Your task to perform on an android device: Search for lg ultragear on amazon, select the first entry, add it to the cart, then select checkout. Image 0: 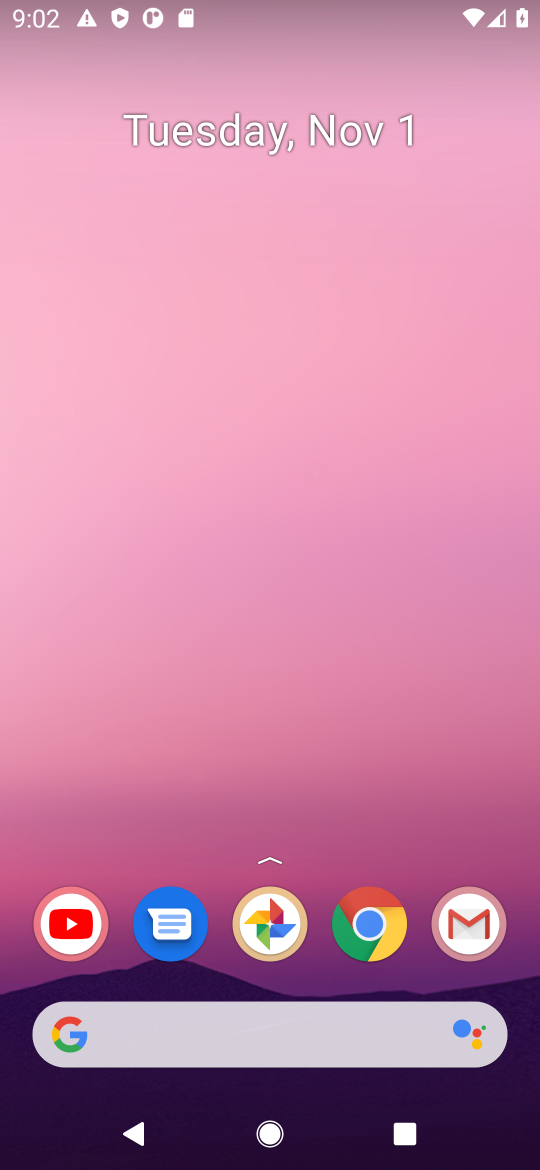
Step 0: click (367, 941)
Your task to perform on an android device: Search for lg ultragear on amazon, select the first entry, add it to the cart, then select checkout. Image 1: 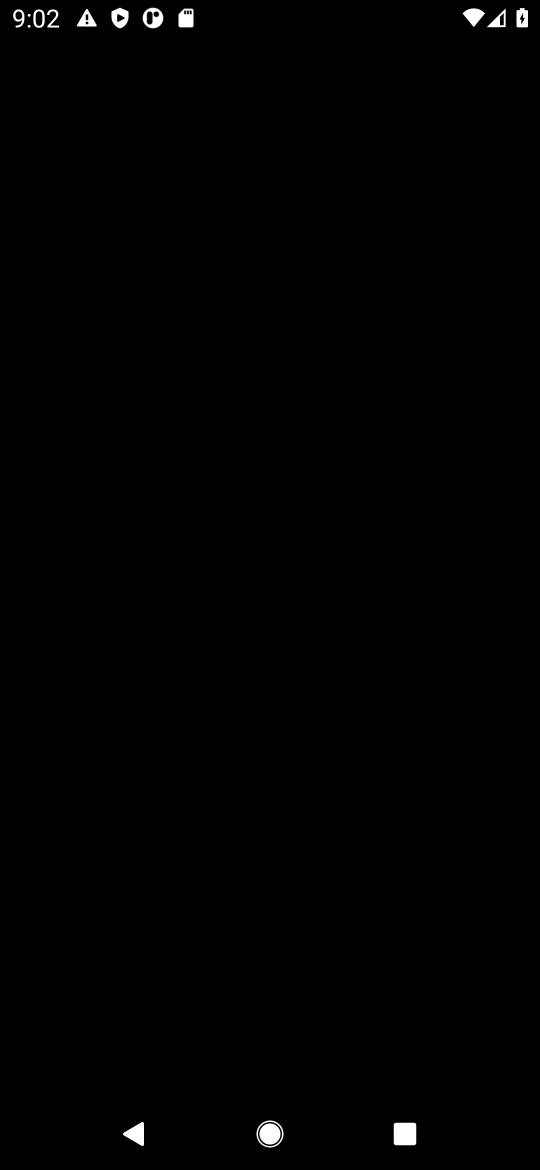
Step 1: press home button
Your task to perform on an android device: Search for lg ultragear on amazon, select the first entry, add it to the cart, then select checkout. Image 2: 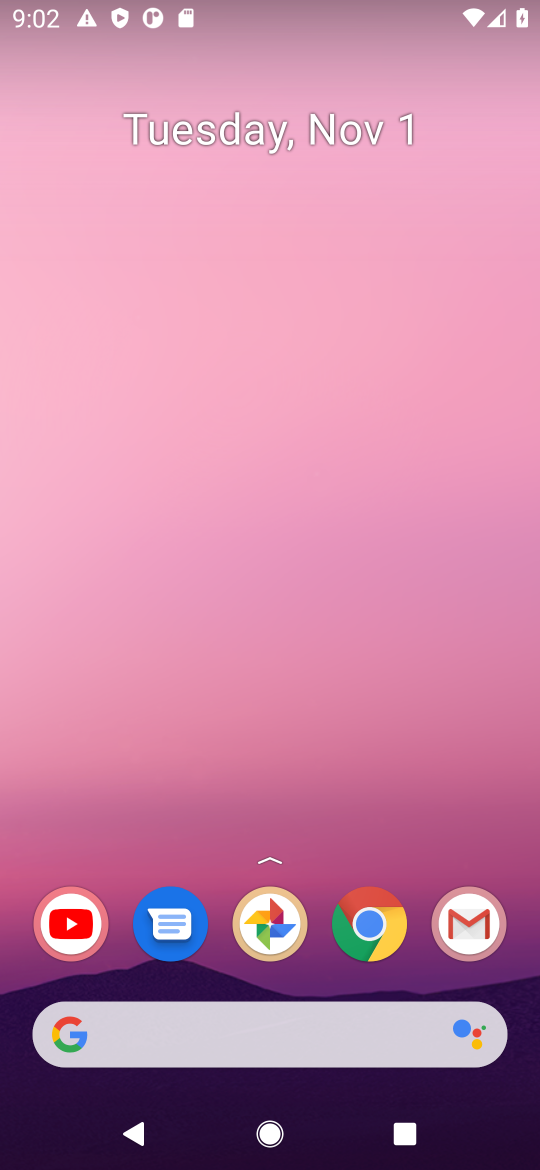
Step 2: click (373, 928)
Your task to perform on an android device: Search for lg ultragear on amazon, select the first entry, add it to the cart, then select checkout. Image 3: 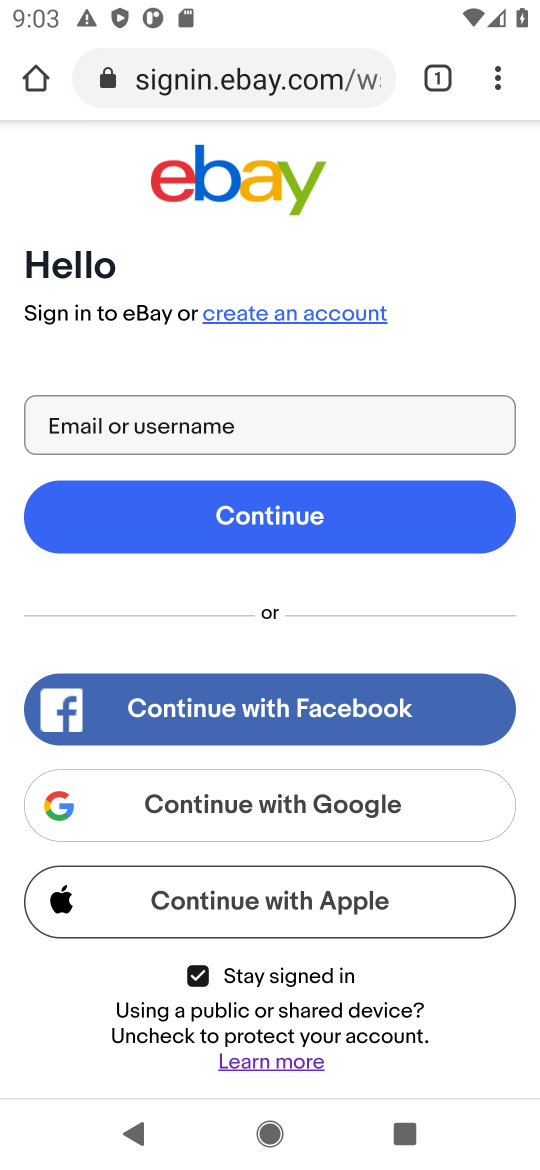
Step 3: click (255, 88)
Your task to perform on an android device: Search for lg ultragear on amazon, select the first entry, add it to the cart, then select checkout. Image 4: 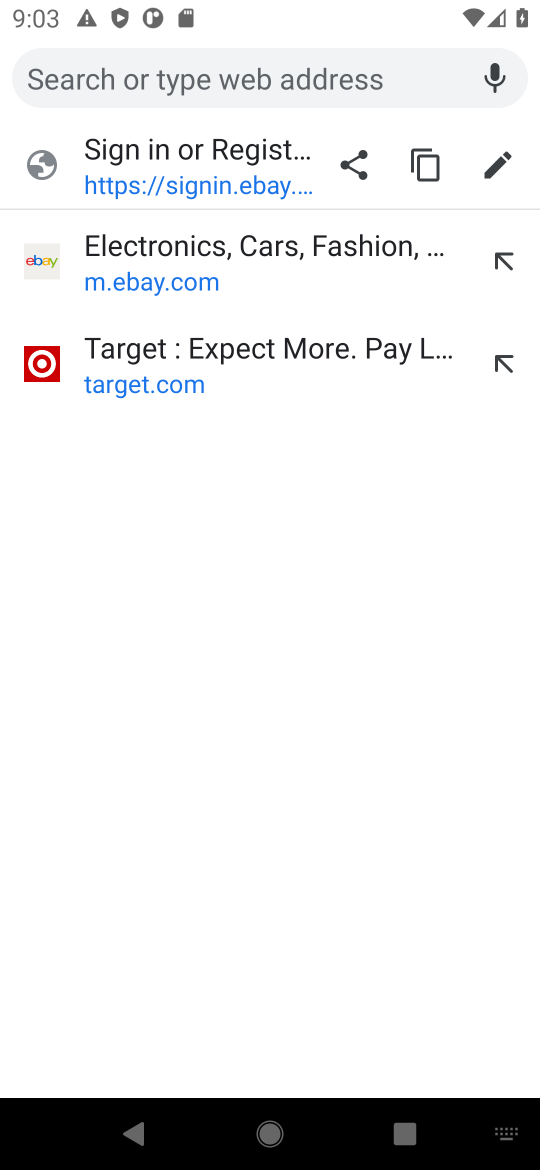
Step 4: type "amazon"
Your task to perform on an android device: Search for lg ultragear on amazon, select the first entry, add it to the cart, then select checkout. Image 5: 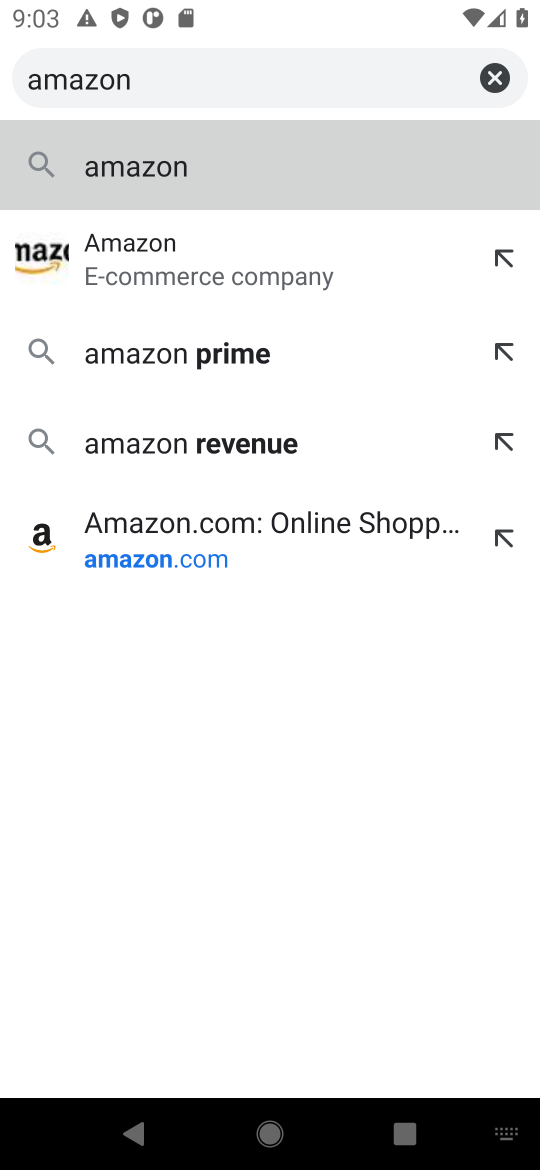
Step 5: click (204, 269)
Your task to perform on an android device: Search for lg ultragear on amazon, select the first entry, add it to the cart, then select checkout. Image 6: 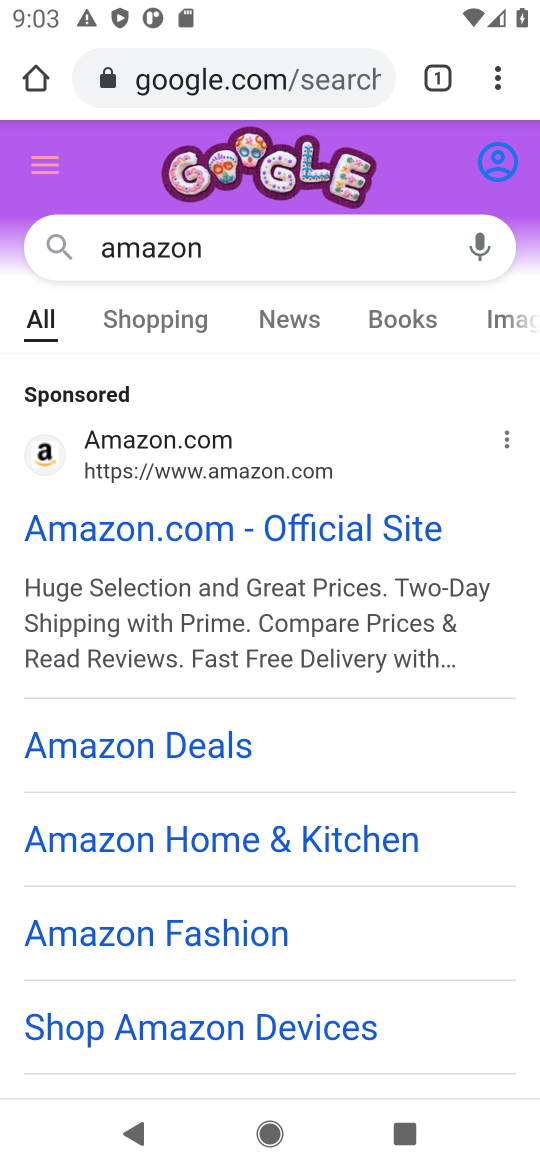
Step 6: click (288, 533)
Your task to perform on an android device: Search for lg ultragear on amazon, select the first entry, add it to the cart, then select checkout. Image 7: 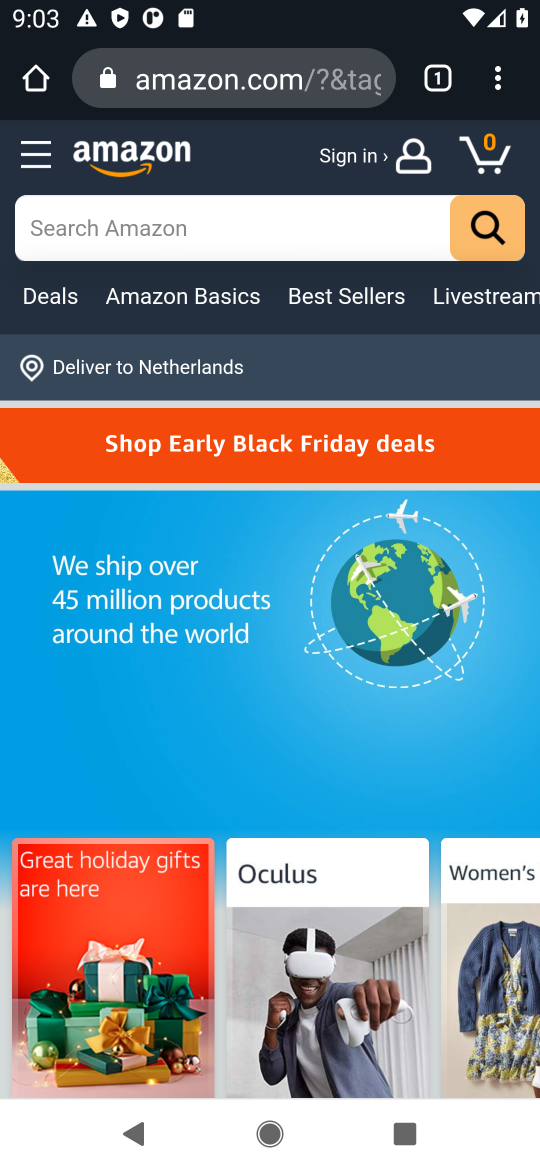
Step 7: click (251, 230)
Your task to perform on an android device: Search for lg ultragear on amazon, select the first entry, add it to the cart, then select checkout. Image 8: 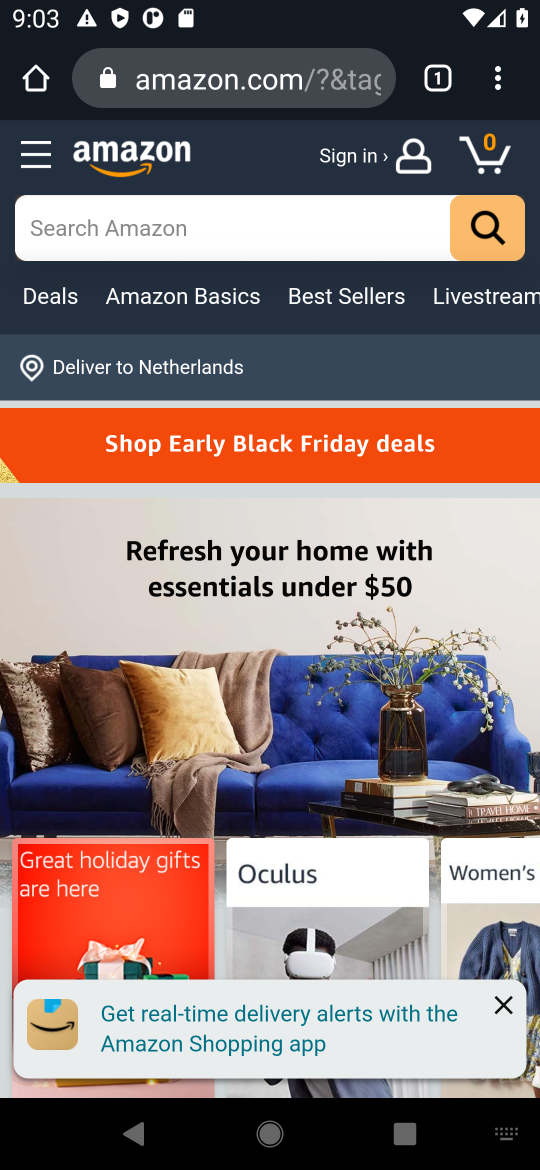
Step 8: type "lg ultragear"
Your task to perform on an android device: Search for lg ultragear on amazon, select the first entry, add it to the cart, then select checkout. Image 9: 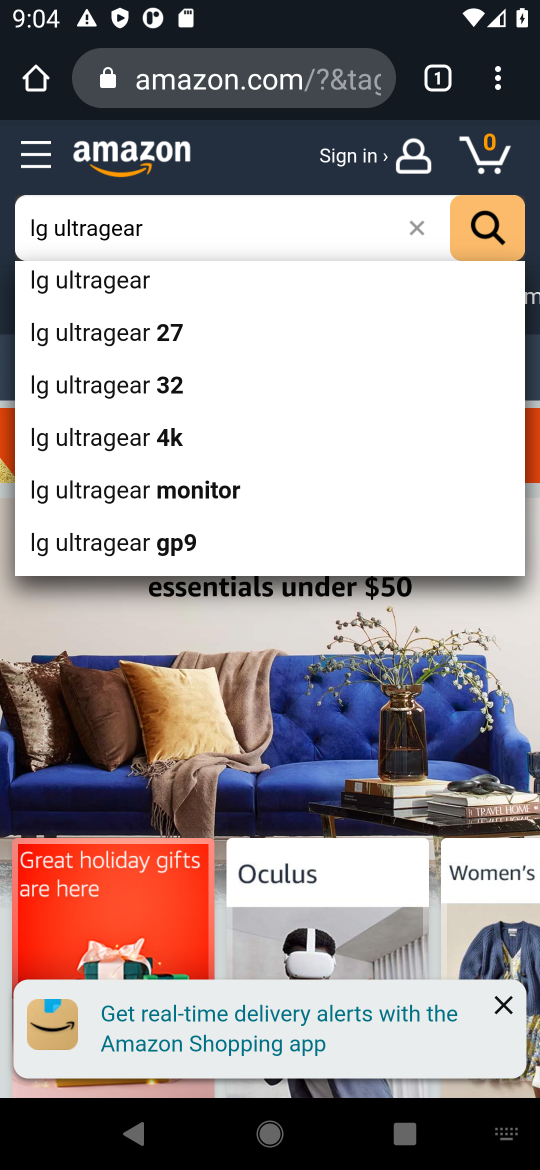
Step 9: click (80, 281)
Your task to perform on an android device: Search for lg ultragear on amazon, select the first entry, add it to the cart, then select checkout. Image 10: 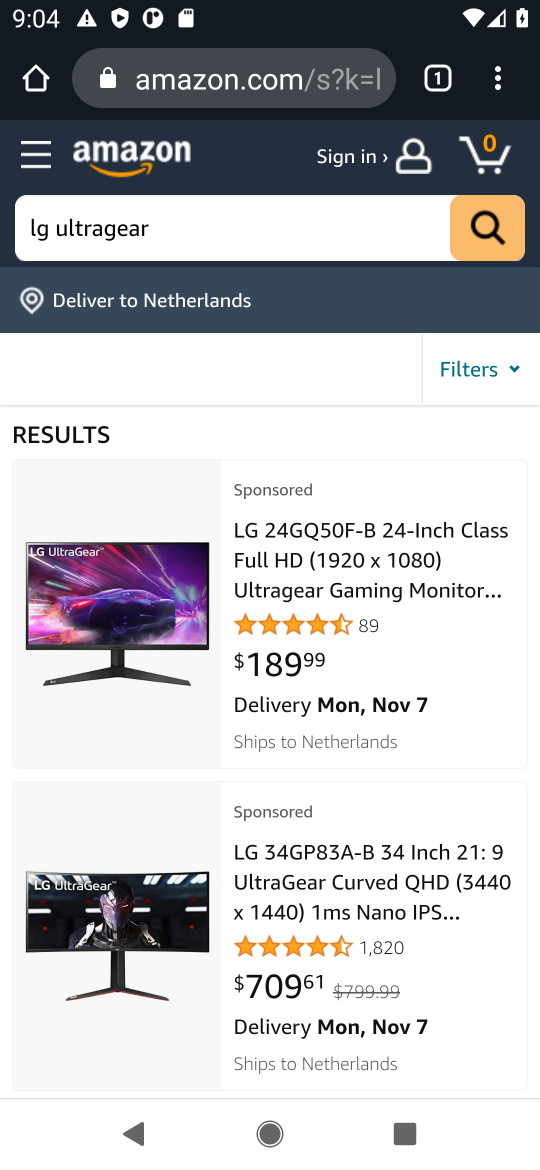
Step 10: click (166, 565)
Your task to perform on an android device: Search for lg ultragear on amazon, select the first entry, add it to the cart, then select checkout. Image 11: 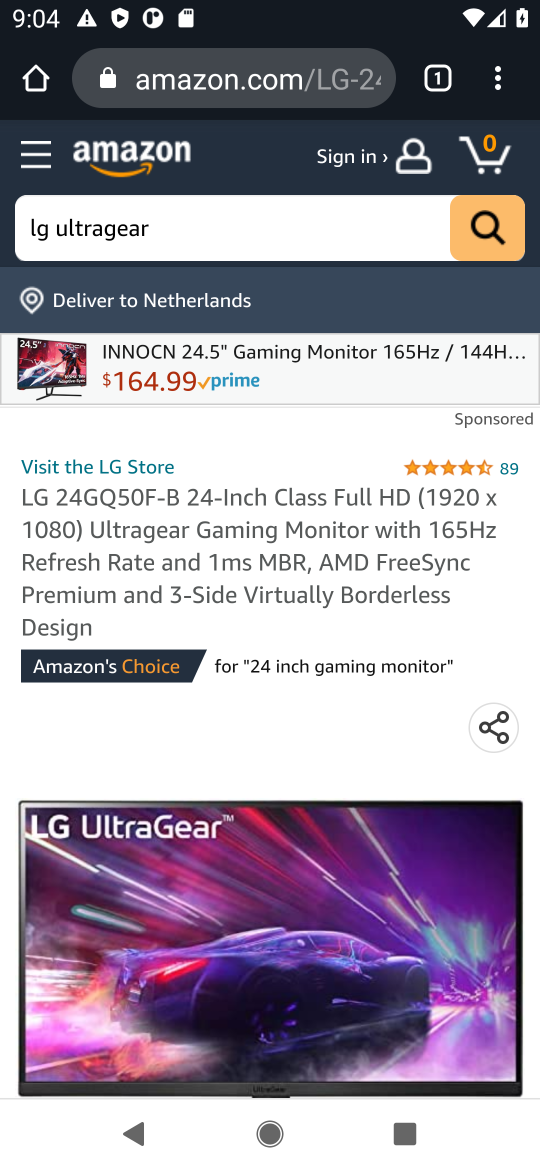
Step 11: drag from (380, 713) to (334, 438)
Your task to perform on an android device: Search for lg ultragear on amazon, select the first entry, add it to the cart, then select checkout. Image 12: 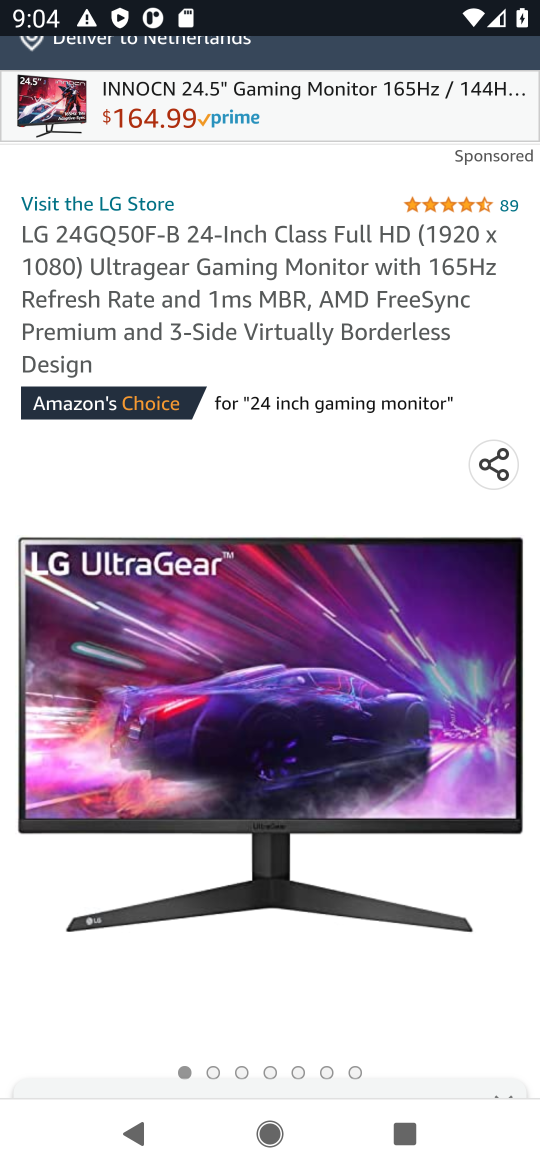
Step 12: drag from (364, 954) to (120, 115)
Your task to perform on an android device: Search for lg ultragear on amazon, select the first entry, add it to the cart, then select checkout. Image 13: 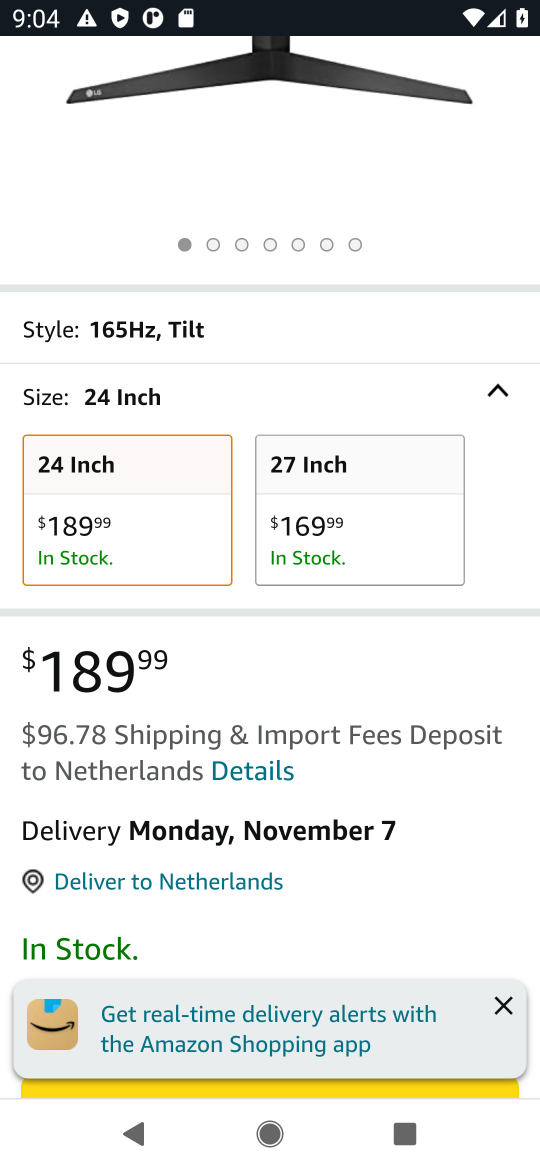
Step 13: drag from (414, 881) to (211, 388)
Your task to perform on an android device: Search for lg ultragear on amazon, select the first entry, add it to the cart, then select checkout. Image 14: 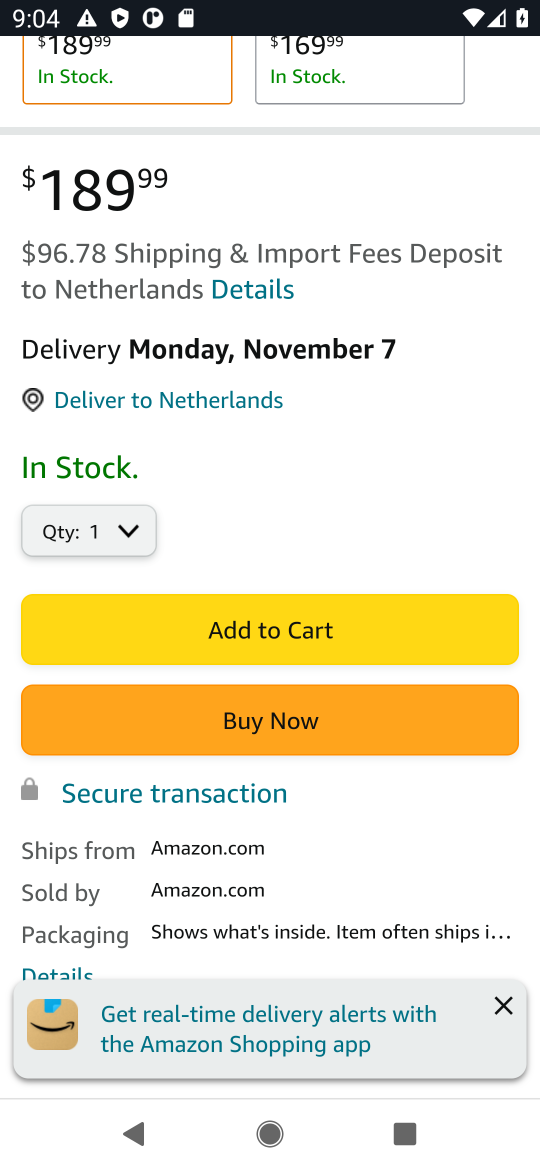
Step 14: click (259, 638)
Your task to perform on an android device: Search for lg ultragear on amazon, select the first entry, add it to the cart, then select checkout. Image 15: 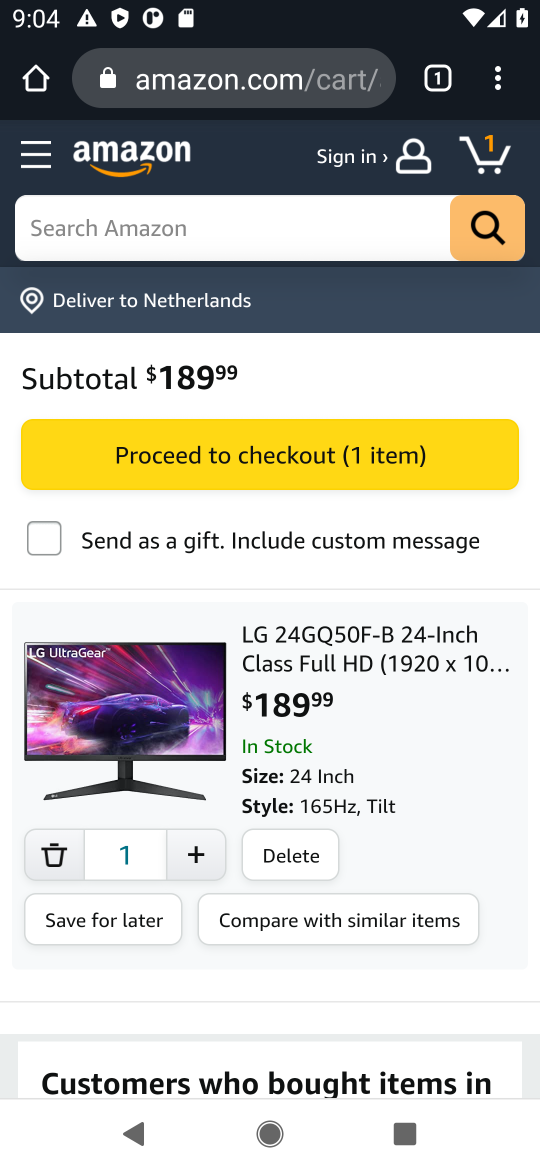
Step 15: click (396, 446)
Your task to perform on an android device: Search for lg ultragear on amazon, select the first entry, add it to the cart, then select checkout. Image 16: 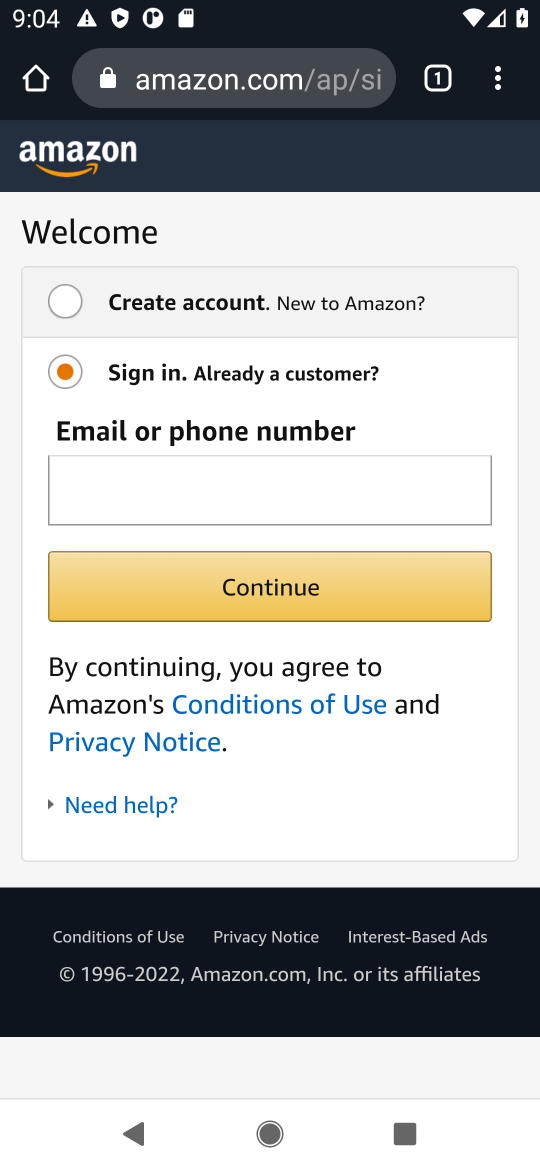
Step 16: task complete